Your task to perform on an android device: check data usage Image 0: 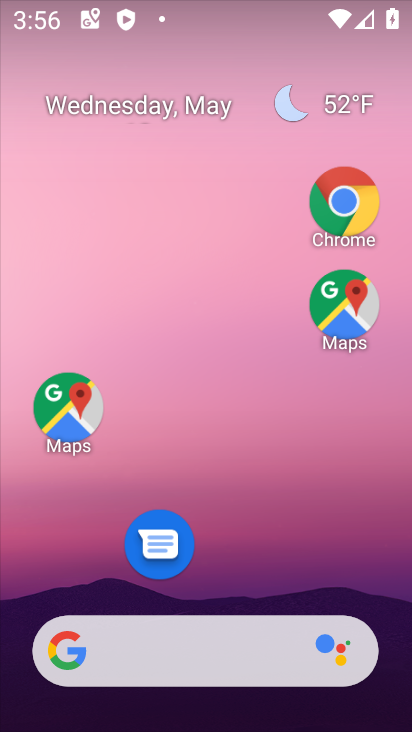
Step 0: click (255, 115)
Your task to perform on an android device: check data usage Image 1: 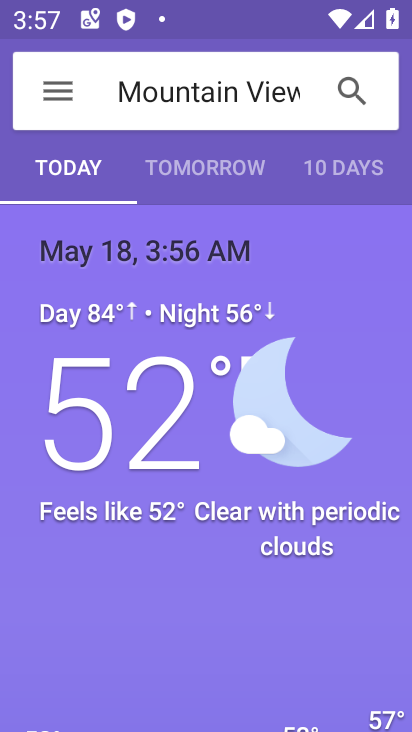
Step 1: press home button
Your task to perform on an android device: check data usage Image 2: 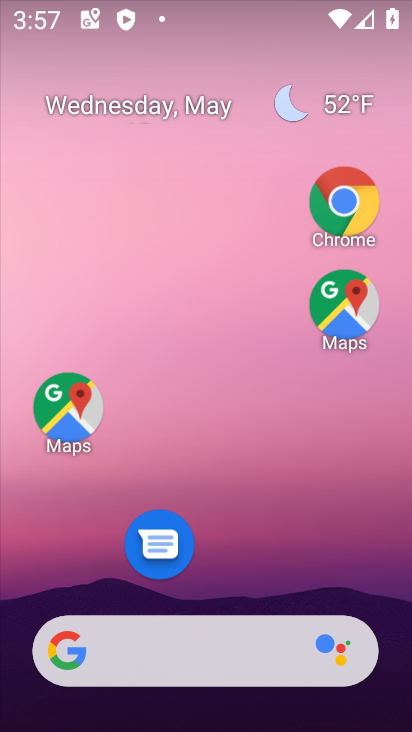
Step 2: drag from (302, 541) to (102, 26)
Your task to perform on an android device: check data usage Image 3: 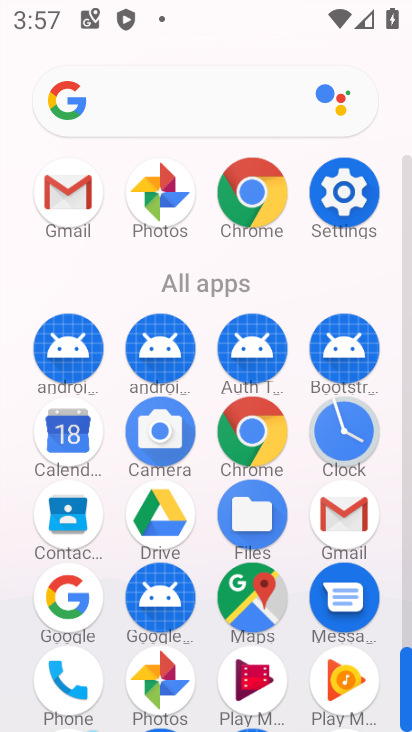
Step 3: click (324, 155)
Your task to perform on an android device: check data usage Image 4: 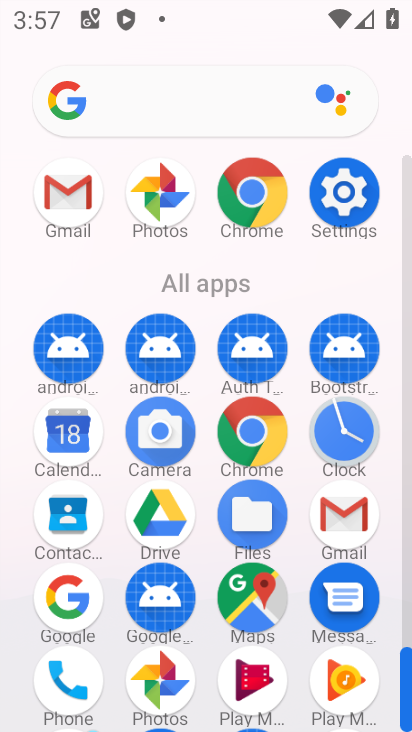
Step 4: click (348, 203)
Your task to perform on an android device: check data usage Image 5: 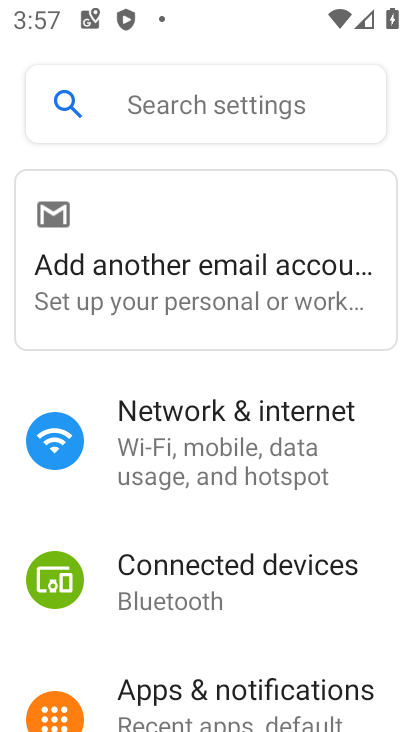
Step 5: click (257, 420)
Your task to perform on an android device: check data usage Image 6: 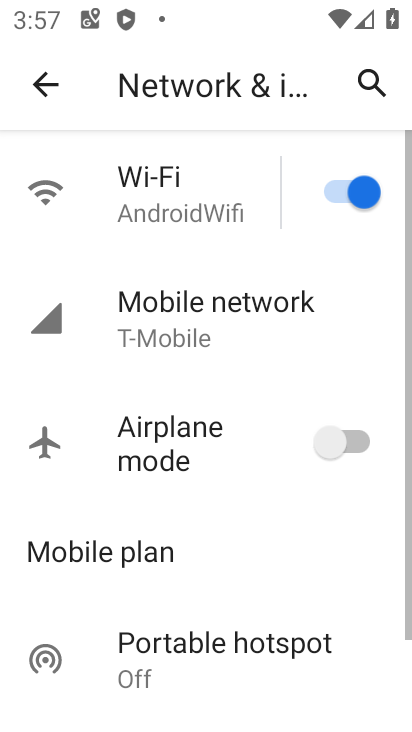
Step 6: click (179, 351)
Your task to perform on an android device: check data usage Image 7: 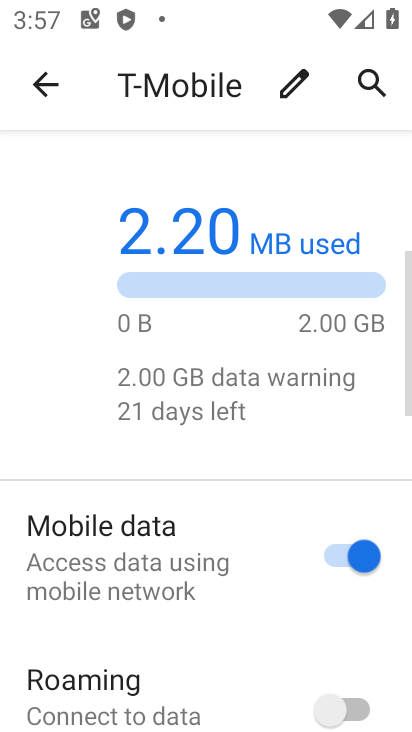
Step 7: task complete